Your task to perform on an android device: See recent photos Image 0: 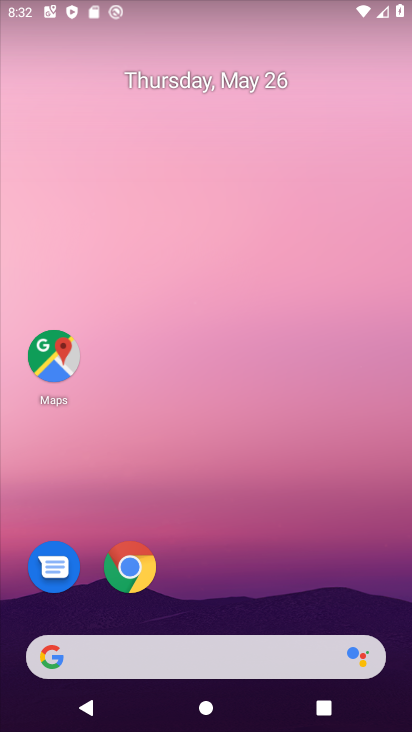
Step 0: press home button
Your task to perform on an android device: See recent photos Image 1: 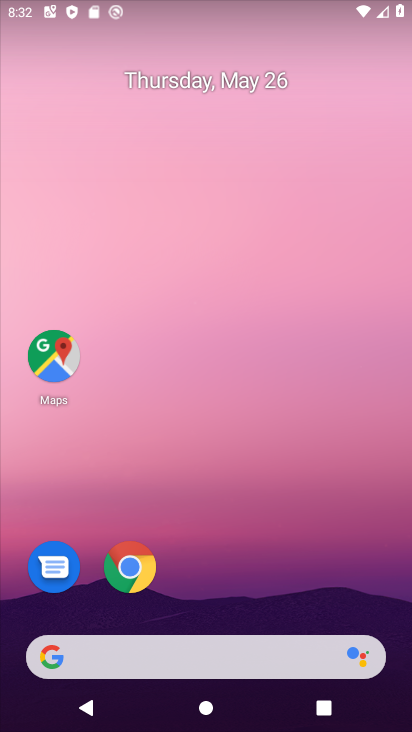
Step 1: drag from (144, 657) to (341, 82)
Your task to perform on an android device: See recent photos Image 2: 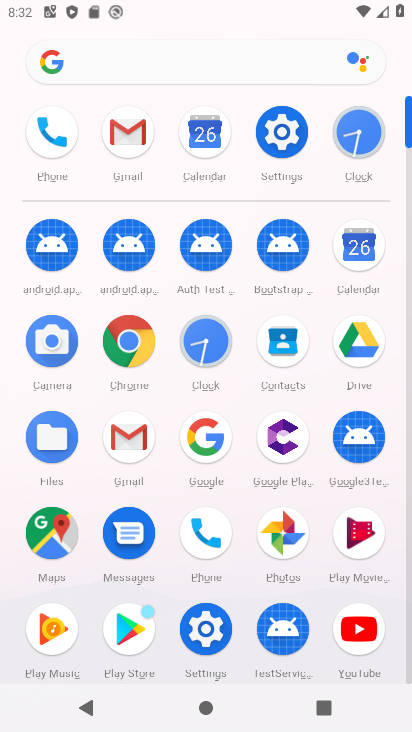
Step 2: click (276, 528)
Your task to perform on an android device: See recent photos Image 3: 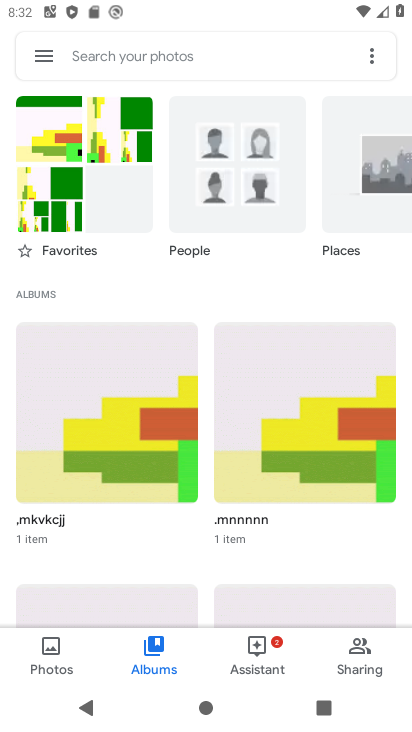
Step 3: click (273, 666)
Your task to perform on an android device: See recent photos Image 4: 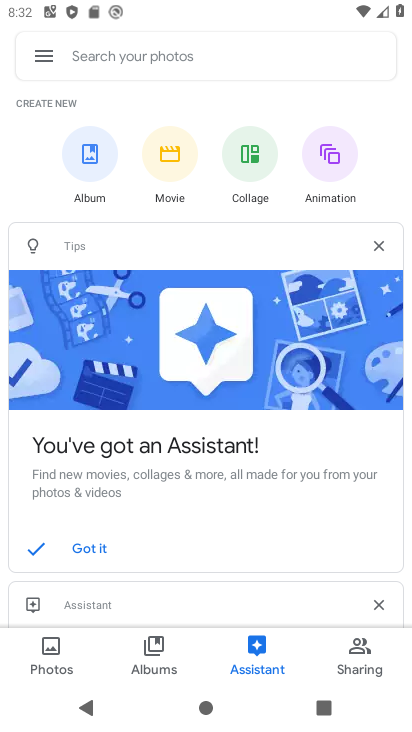
Step 4: click (52, 671)
Your task to perform on an android device: See recent photos Image 5: 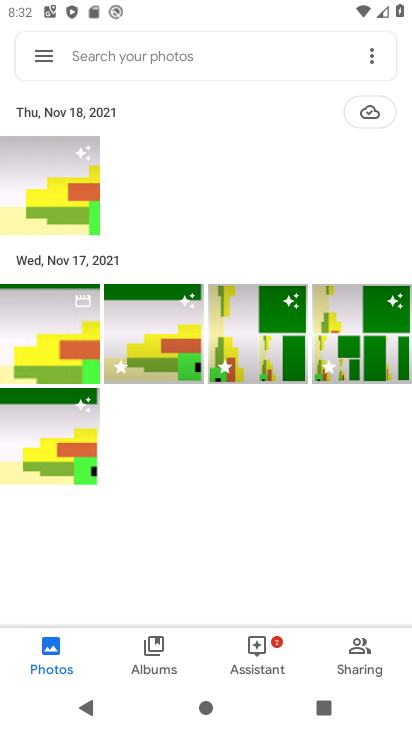
Step 5: task complete